Your task to perform on an android device: Open battery settings Image 0: 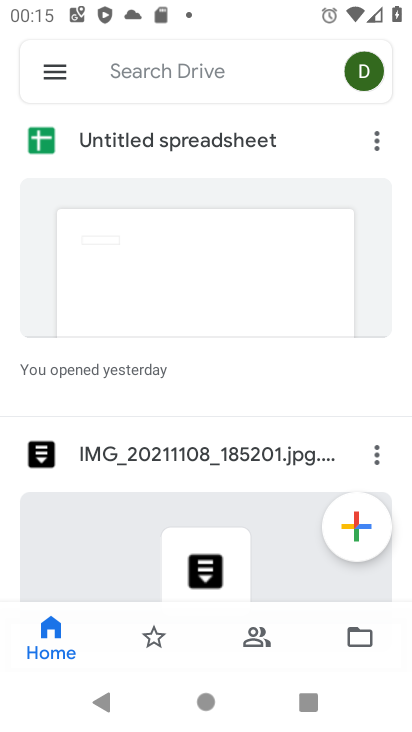
Step 0: press home button
Your task to perform on an android device: Open battery settings Image 1: 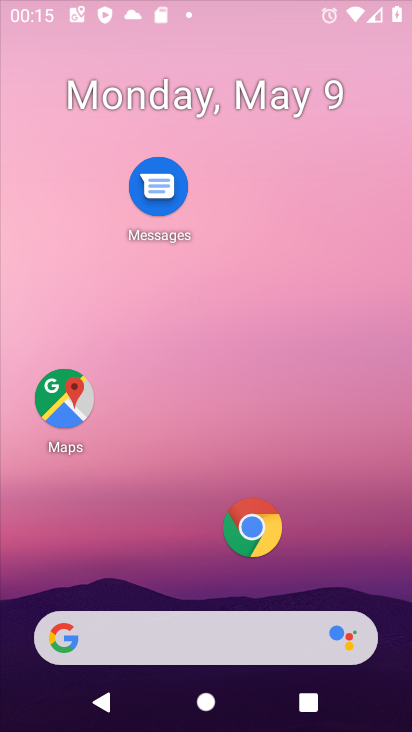
Step 1: drag from (168, 567) to (237, 76)
Your task to perform on an android device: Open battery settings Image 2: 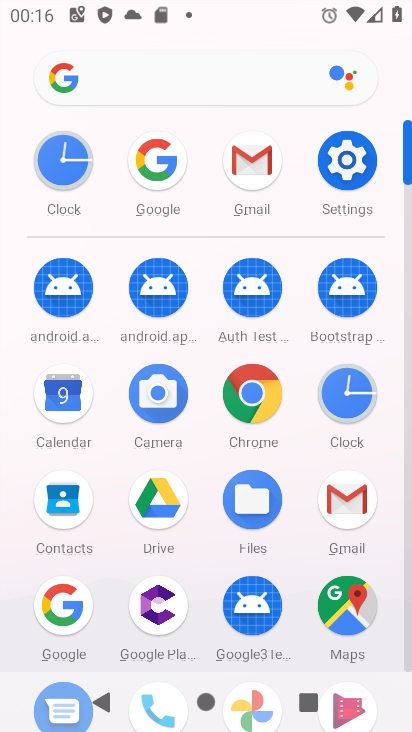
Step 2: click (348, 157)
Your task to perform on an android device: Open battery settings Image 3: 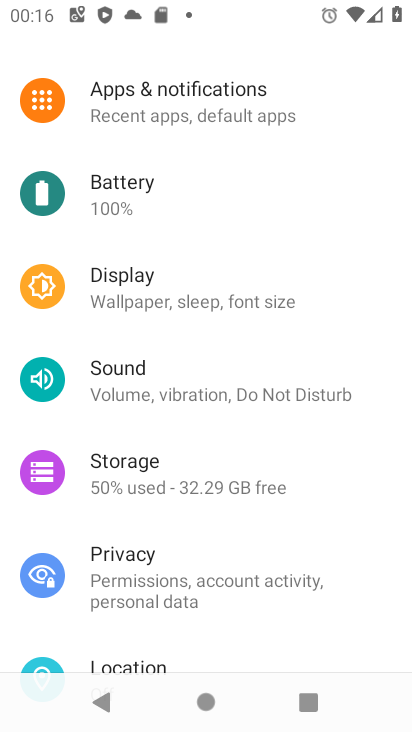
Step 3: click (129, 198)
Your task to perform on an android device: Open battery settings Image 4: 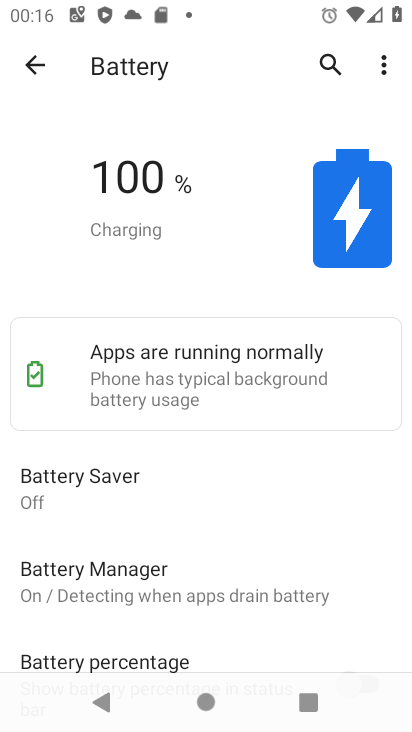
Step 4: task complete